Your task to perform on an android device: Open the phone app and click the voicemail tab. Image 0: 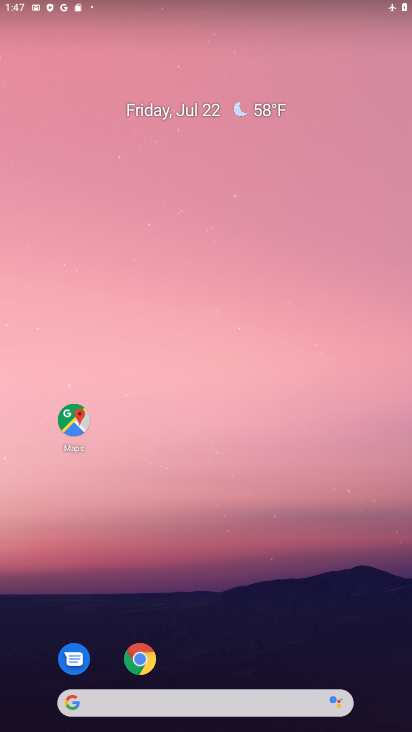
Step 0: drag from (238, 621) to (151, 29)
Your task to perform on an android device: Open the phone app and click the voicemail tab. Image 1: 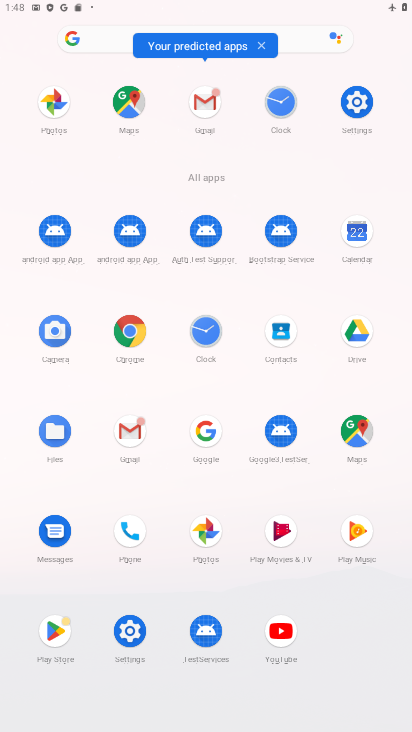
Step 1: click (129, 534)
Your task to perform on an android device: Open the phone app and click the voicemail tab. Image 2: 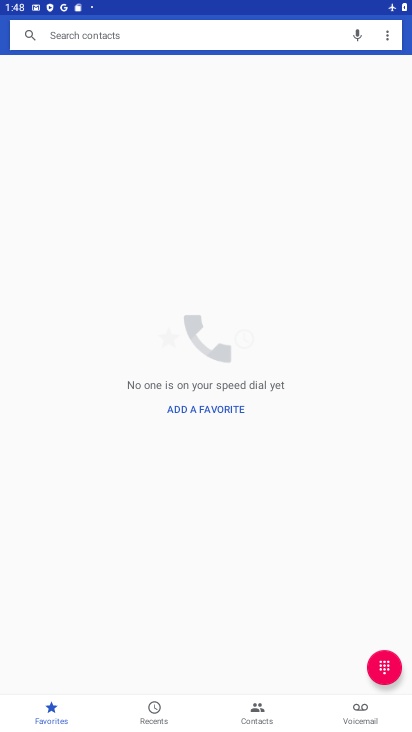
Step 2: click (355, 711)
Your task to perform on an android device: Open the phone app and click the voicemail tab. Image 3: 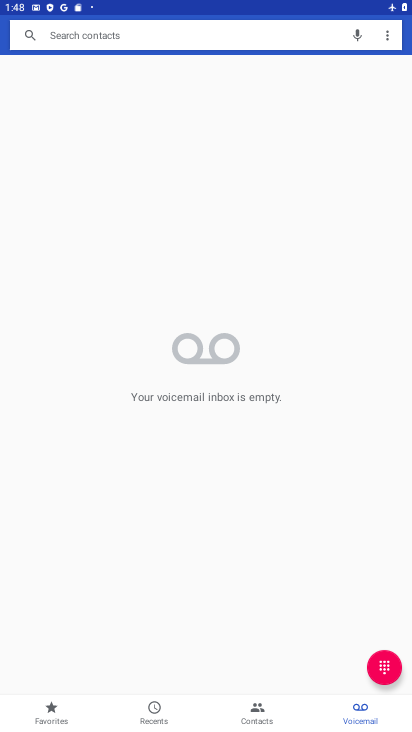
Step 3: task complete